Your task to perform on an android device: Show the shopping cart on target.com. Add "macbook pro 15 inch" to the cart on target.com Image 0: 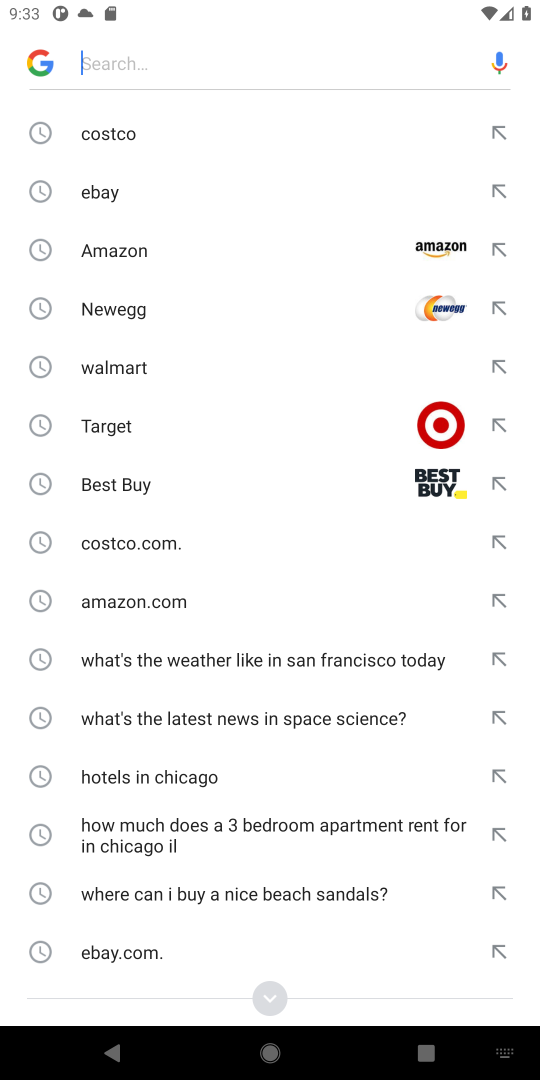
Step 0: click (126, 61)
Your task to perform on an android device: Show the shopping cart on target.com. Add "macbook pro 15 inch" to the cart on target.com Image 1: 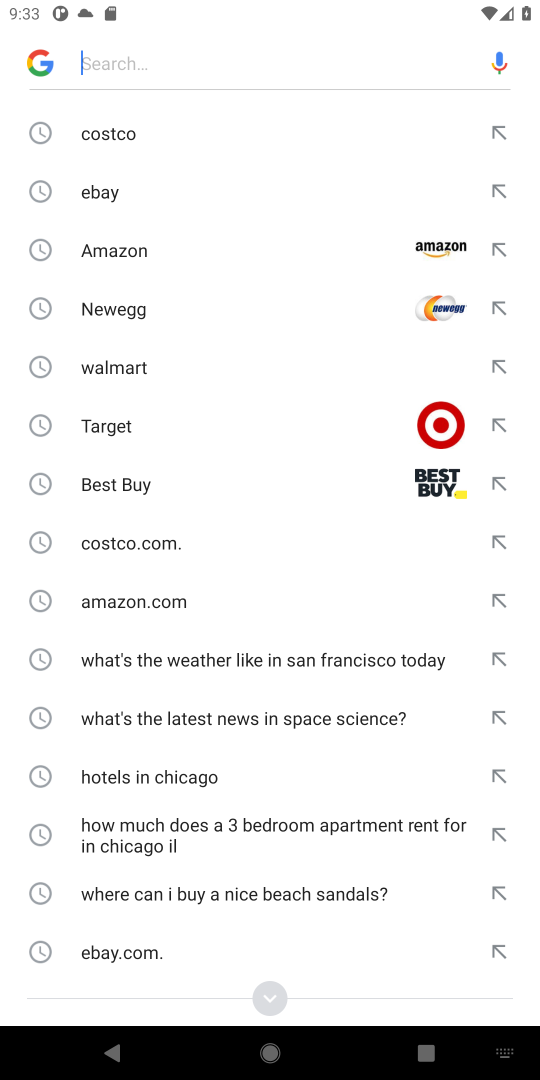
Step 1: type "target.com"
Your task to perform on an android device: Show the shopping cart on target.com. Add "macbook pro 15 inch" to the cart on target.com Image 2: 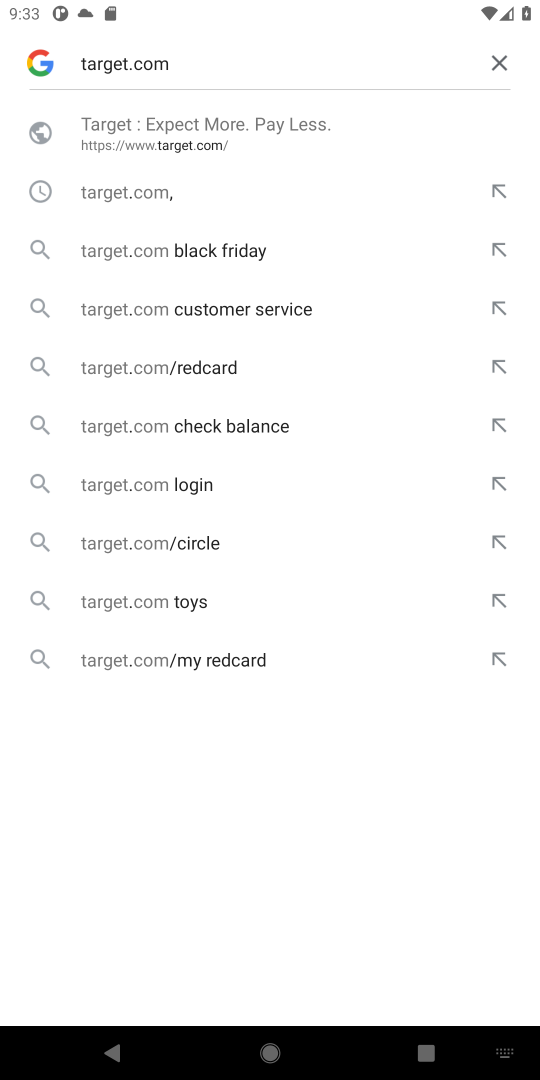
Step 2: click (95, 131)
Your task to perform on an android device: Show the shopping cart on target.com. Add "macbook pro 15 inch" to the cart on target.com Image 3: 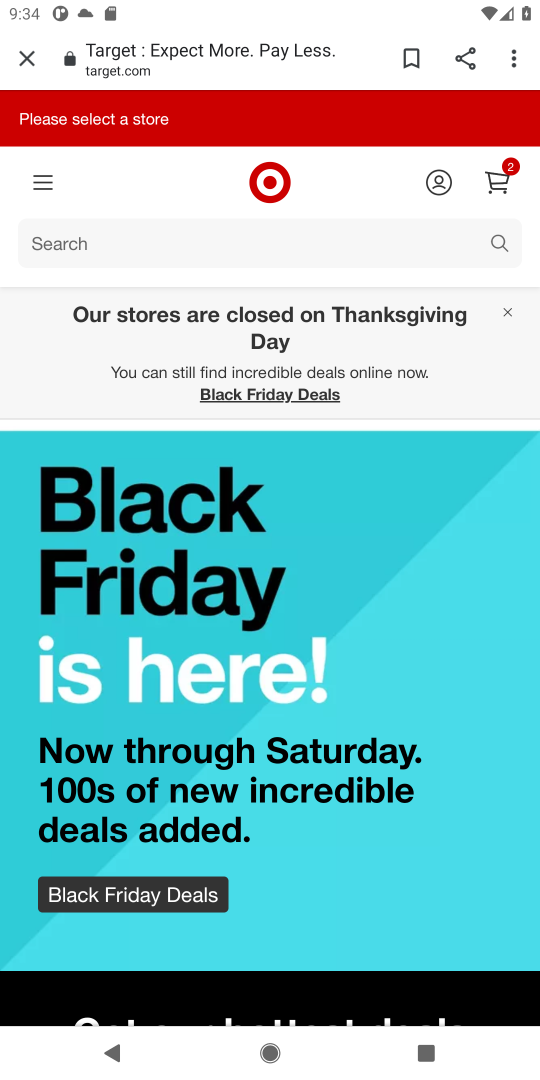
Step 3: click (495, 174)
Your task to perform on an android device: Show the shopping cart on target.com. Add "macbook pro 15 inch" to the cart on target.com Image 4: 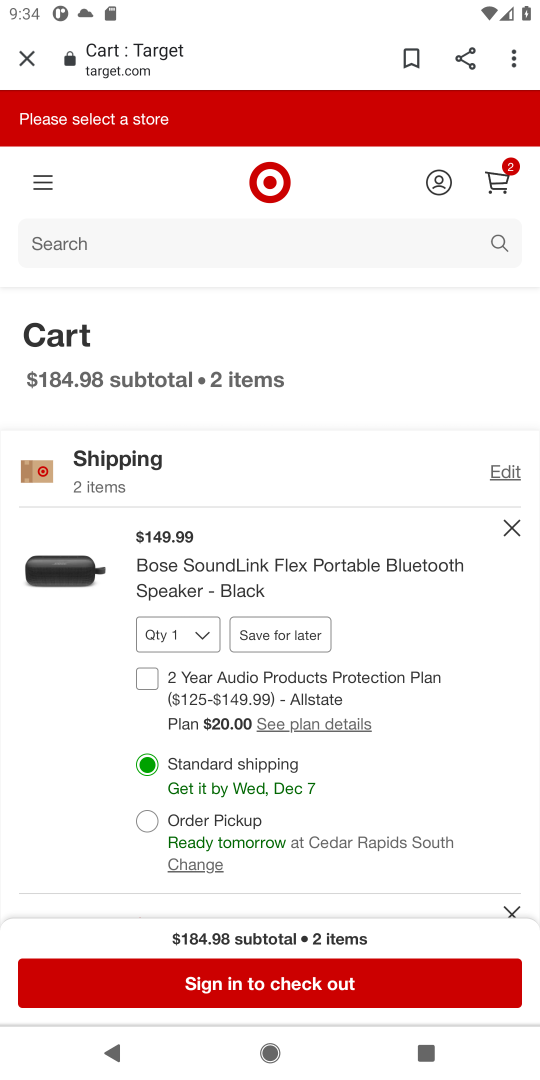
Step 4: drag from (327, 762) to (362, 550)
Your task to perform on an android device: Show the shopping cart on target.com. Add "macbook pro 15 inch" to the cart on target.com Image 5: 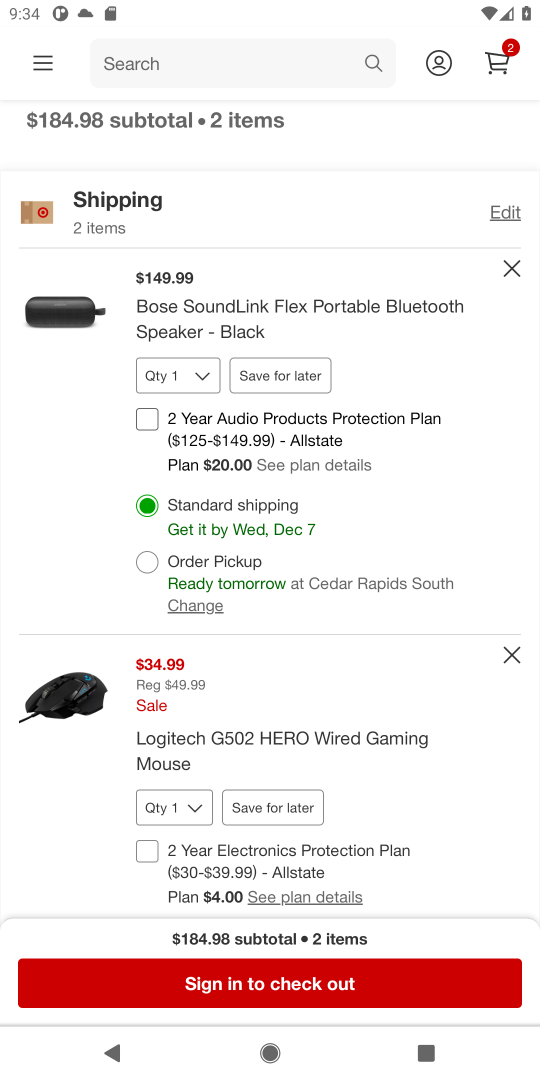
Step 5: click (369, 63)
Your task to perform on an android device: Show the shopping cart on target.com. Add "macbook pro 15 inch" to the cart on target.com Image 6: 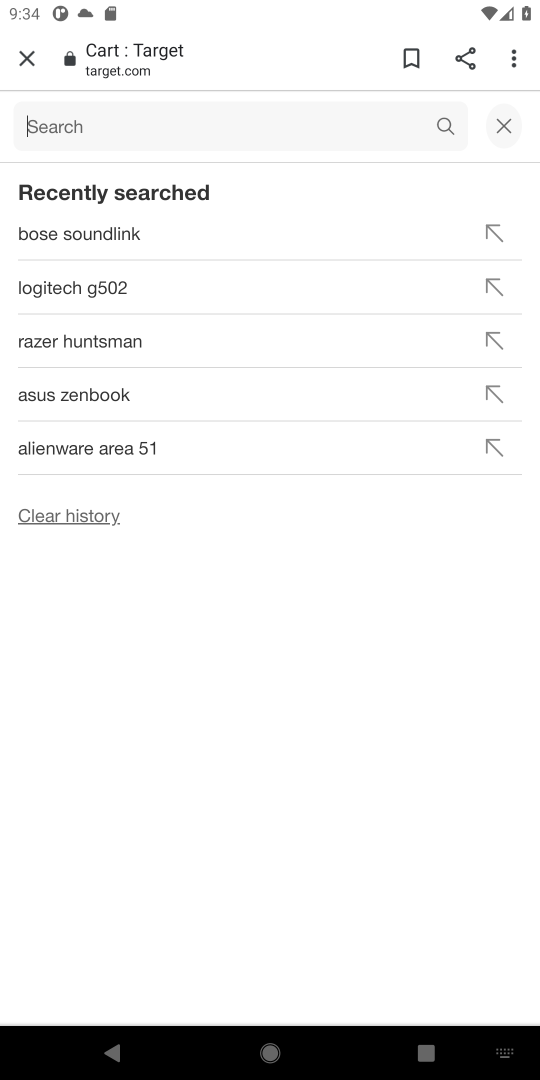
Step 6: type "macbook pro 15 inch"
Your task to perform on an android device: Show the shopping cart on target.com. Add "macbook pro 15 inch" to the cart on target.com Image 7: 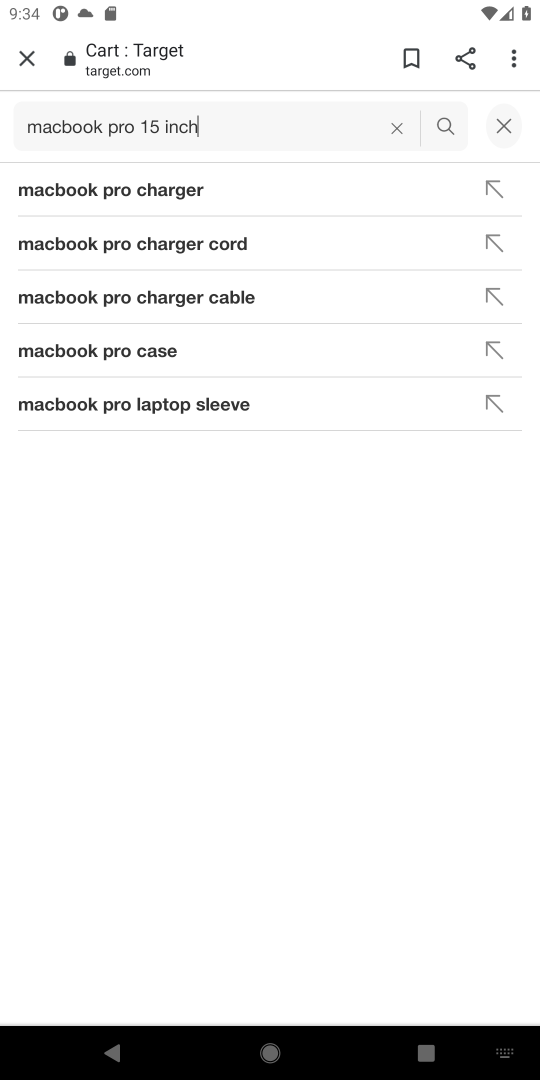
Step 7: click (443, 125)
Your task to perform on an android device: Show the shopping cart on target.com. Add "macbook pro 15 inch" to the cart on target.com Image 8: 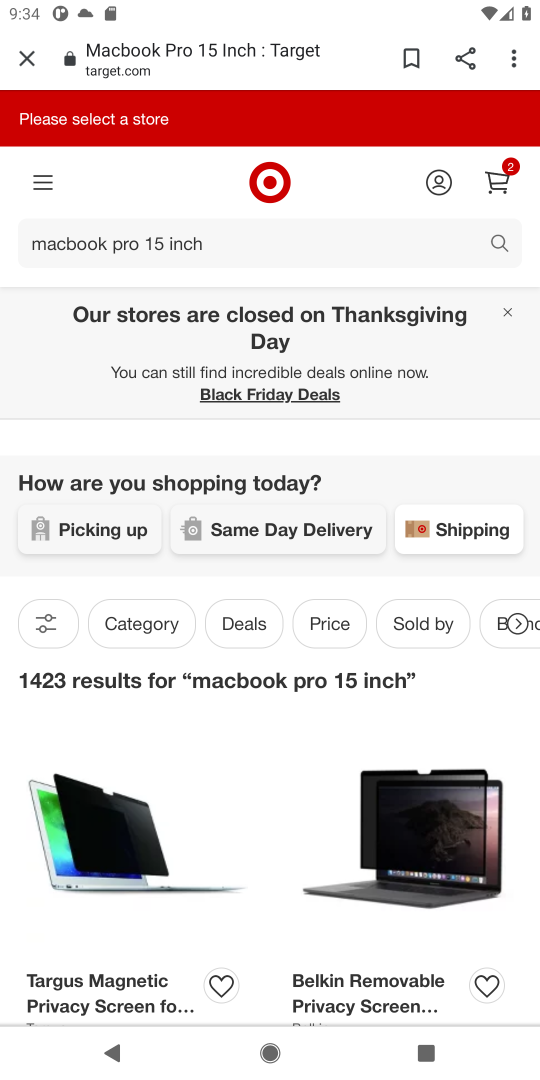
Step 8: task complete